Your task to perform on an android device: What's the weather going to be this weekend? Image 0: 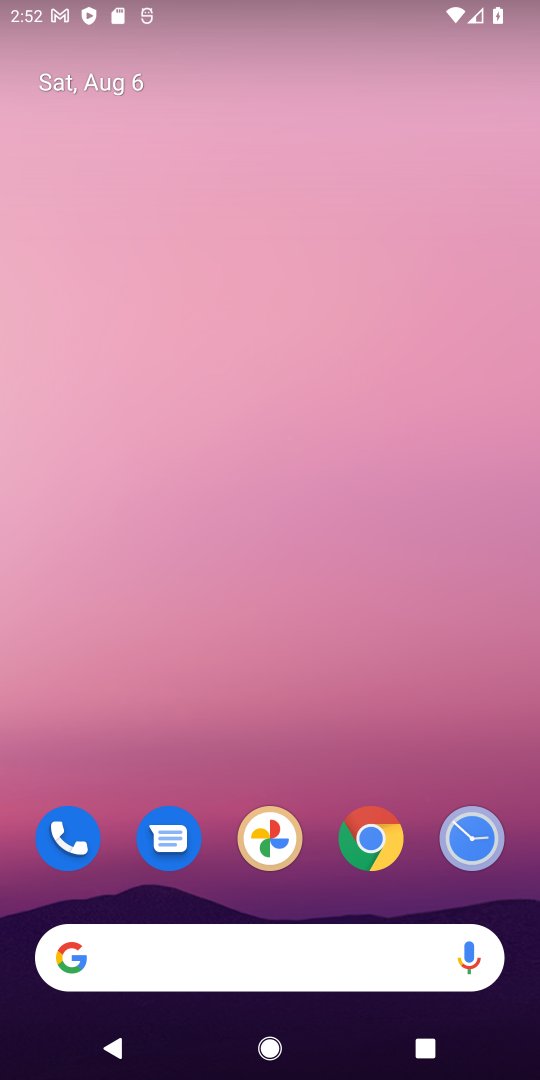
Step 0: click (321, 959)
Your task to perform on an android device: What's the weather going to be this weekend? Image 1: 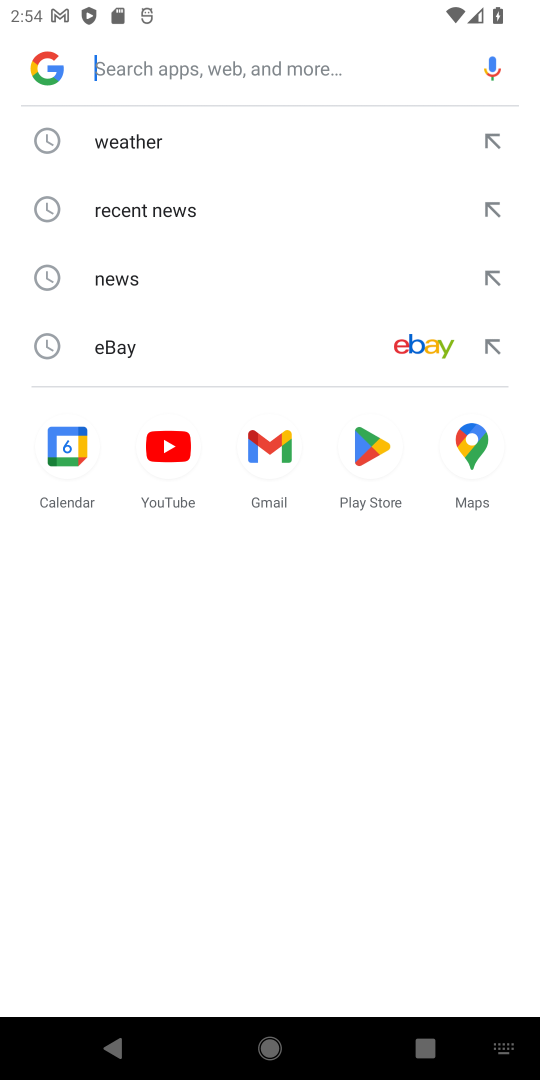
Step 1: click (175, 132)
Your task to perform on an android device: What's the weather going to be this weekend? Image 2: 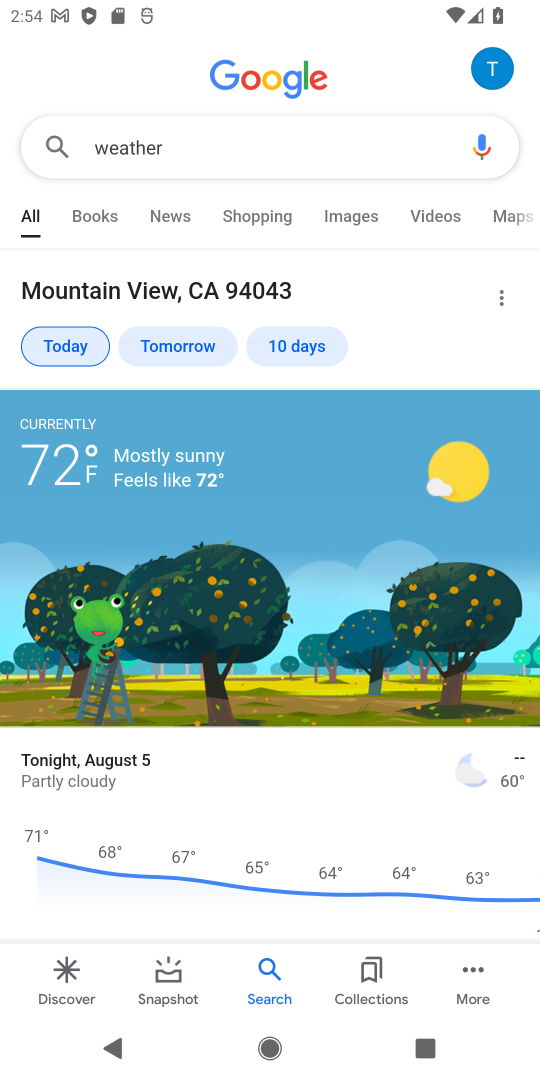
Step 2: click (279, 336)
Your task to perform on an android device: What's the weather going to be this weekend? Image 3: 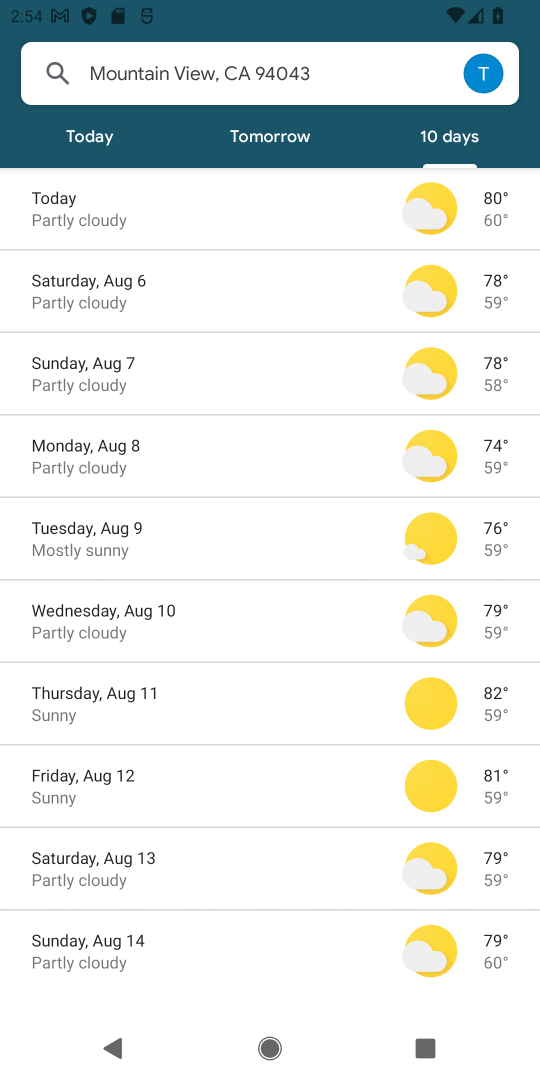
Step 3: task complete